Your task to perform on an android device: turn on priority inbox in the gmail app Image 0: 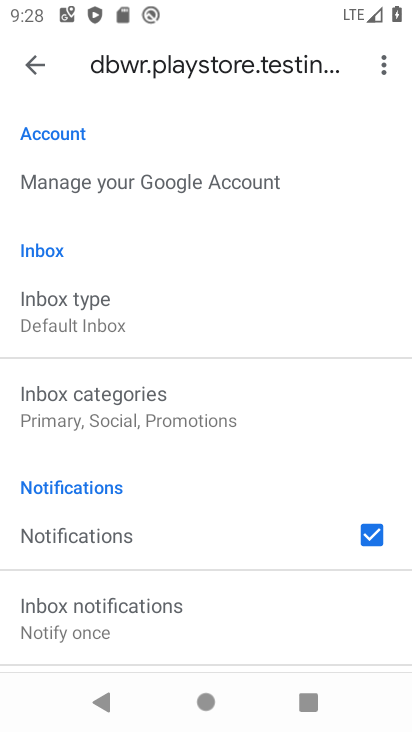
Step 0: click (115, 321)
Your task to perform on an android device: turn on priority inbox in the gmail app Image 1: 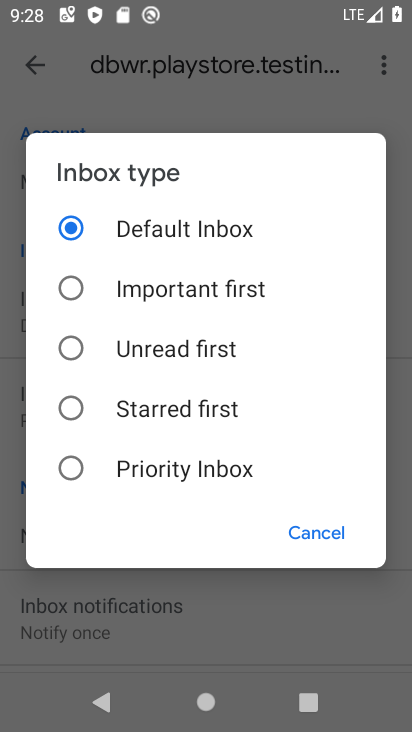
Step 1: click (73, 463)
Your task to perform on an android device: turn on priority inbox in the gmail app Image 2: 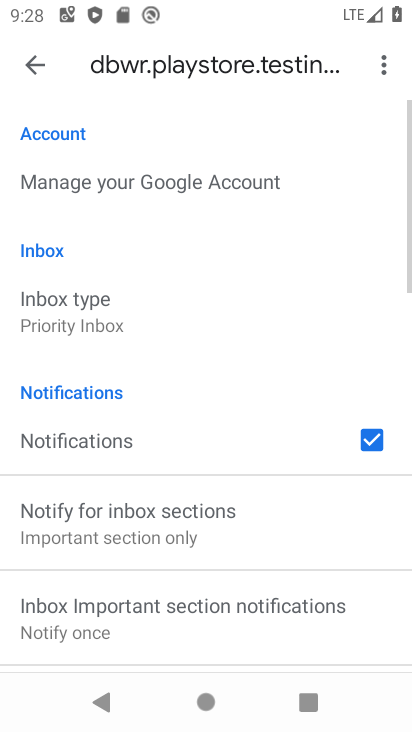
Step 2: task complete